Your task to perform on an android device: turn off location Image 0: 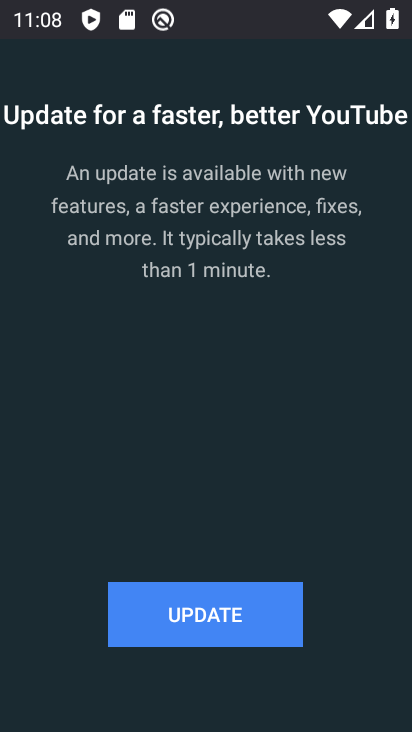
Step 0: click (255, 602)
Your task to perform on an android device: turn off location Image 1: 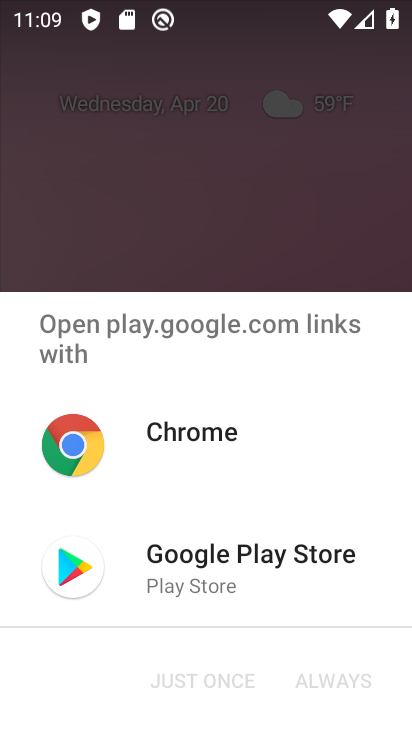
Step 1: click (267, 566)
Your task to perform on an android device: turn off location Image 2: 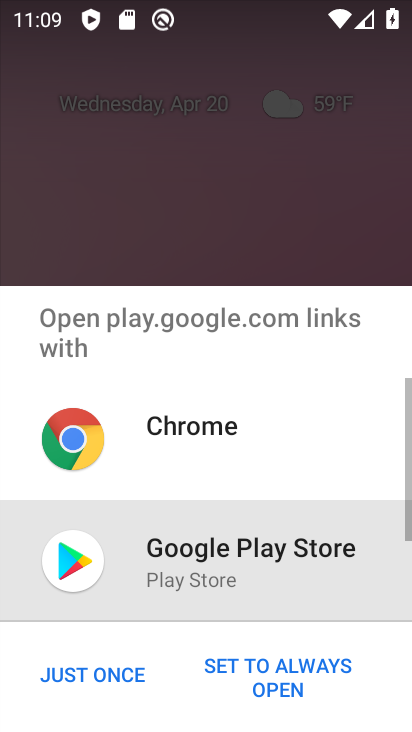
Step 2: click (267, 566)
Your task to perform on an android device: turn off location Image 3: 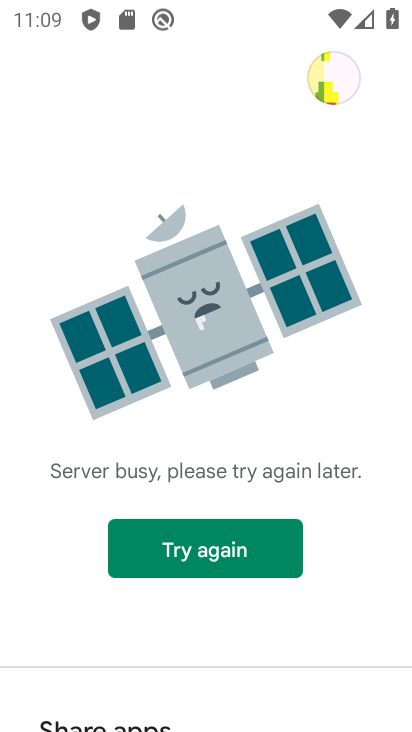
Step 3: click (267, 566)
Your task to perform on an android device: turn off location Image 4: 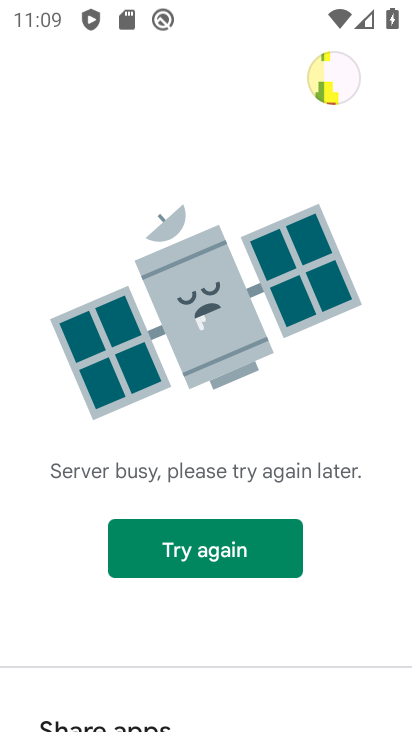
Step 4: click (267, 566)
Your task to perform on an android device: turn off location Image 5: 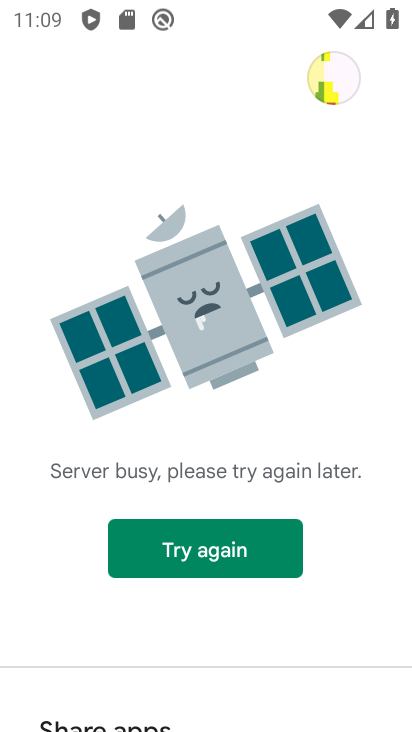
Step 5: press home button
Your task to perform on an android device: turn off location Image 6: 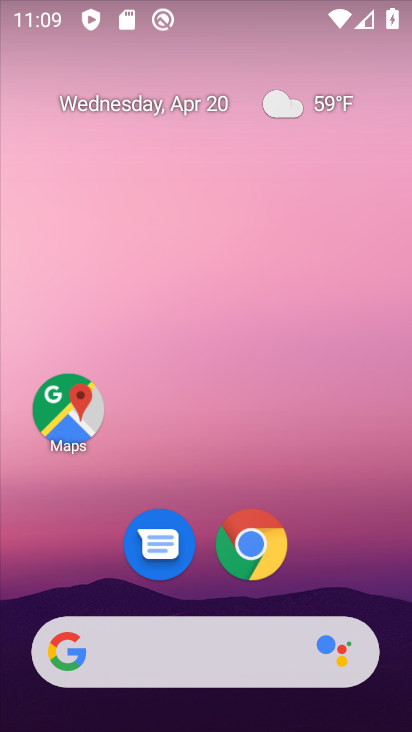
Step 6: drag from (238, 479) to (284, 109)
Your task to perform on an android device: turn off location Image 7: 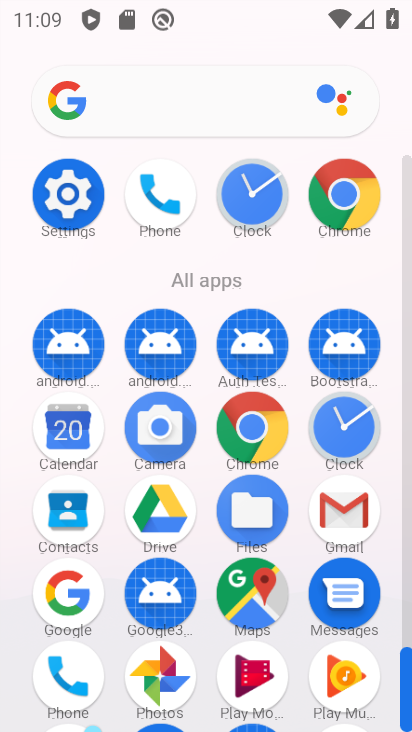
Step 7: click (75, 196)
Your task to perform on an android device: turn off location Image 8: 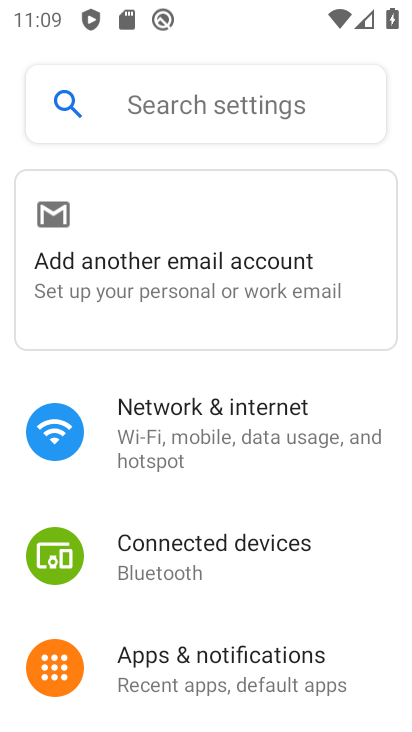
Step 8: drag from (199, 601) to (232, 210)
Your task to perform on an android device: turn off location Image 9: 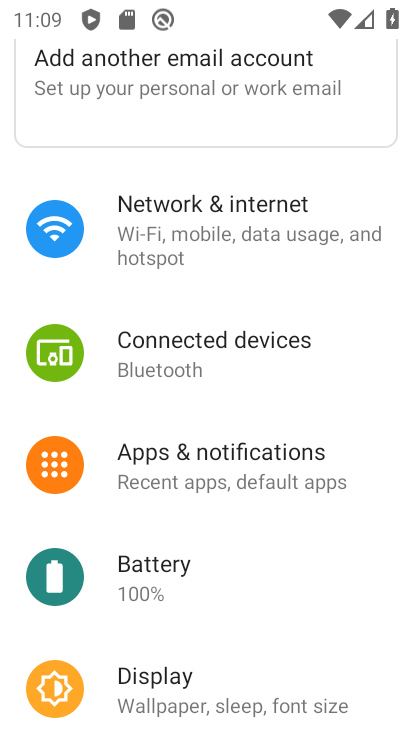
Step 9: drag from (250, 560) to (277, 242)
Your task to perform on an android device: turn off location Image 10: 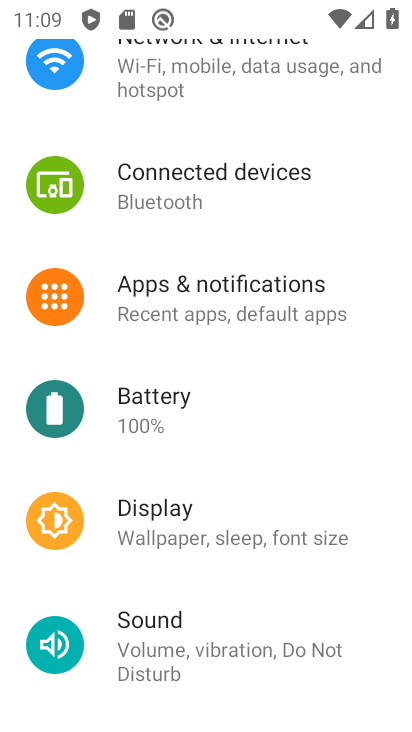
Step 10: drag from (253, 542) to (239, 162)
Your task to perform on an android device: turn off location Image 11: 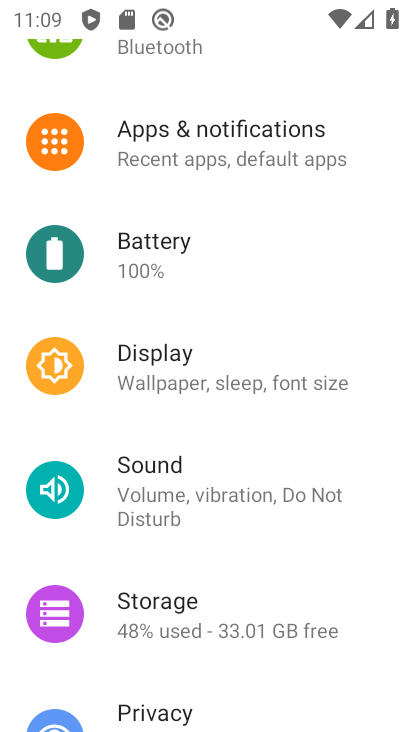
Step 11: drag from (318, 640) to (304, 198)
Your task to perform on an android device: turn off location Image 12: 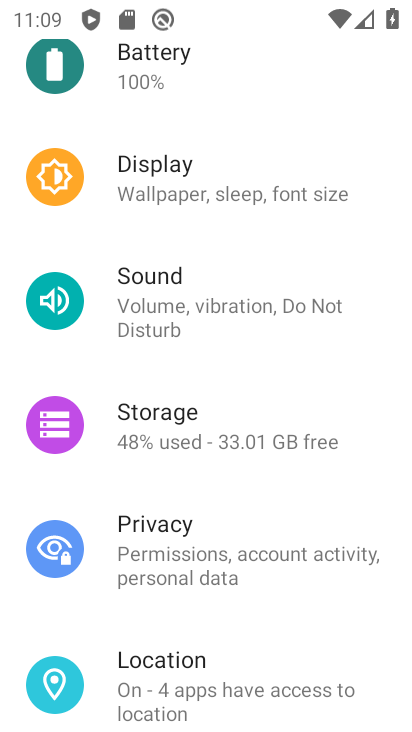
Step 12: click (224, 690)
Your task to perform on an android device: turn off location Image 13: 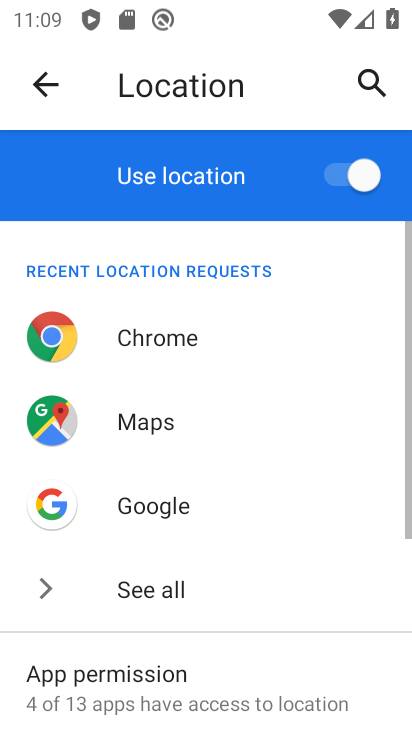
Step 13: click (355, 167)
Your task to perform on an android device: turn off location Image 14: 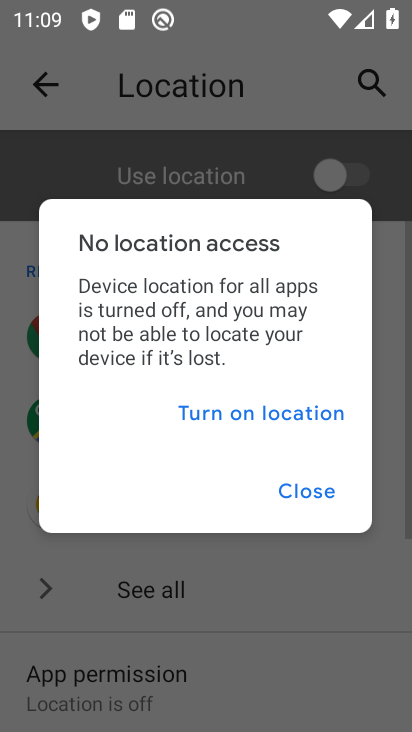
Step 14: task complete